Your task to perform on an android device: turn off data saver in the chrome app Image 0: 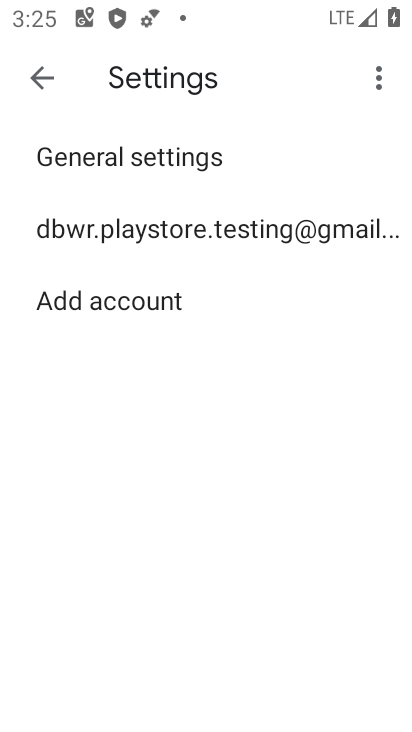
Step 0: press home button
Your task to perform on an android device: turn off data saver in the chrome app Image 1: 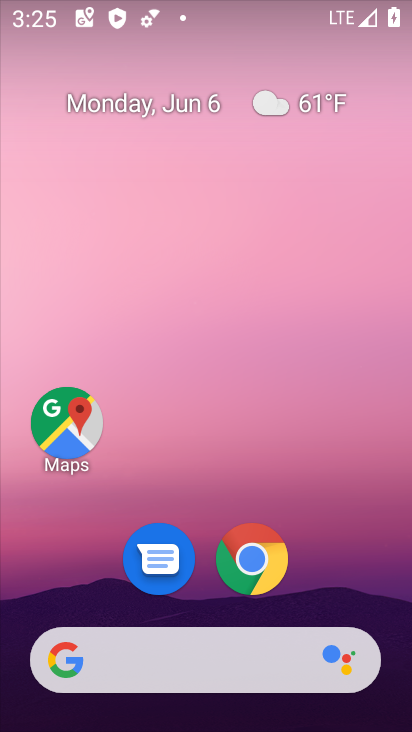
Step 1: click (244, 579)
Your task to perform on an android device: turn off data saver in the chrome app Image 2: 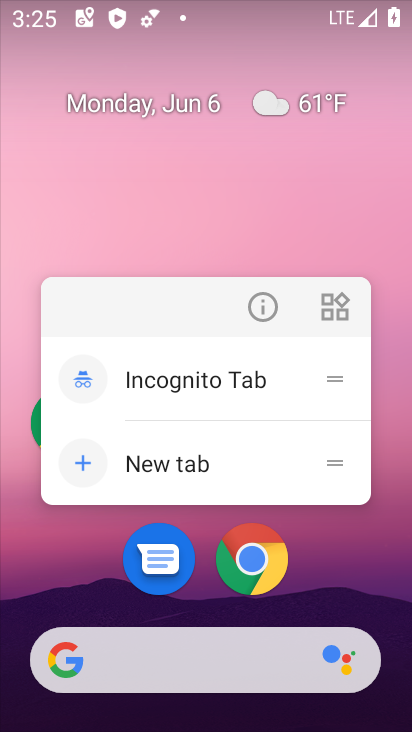
Step 2: click (234, 560)
Your task to perform on an android device: turn off data saver in the chrome app Image 3: 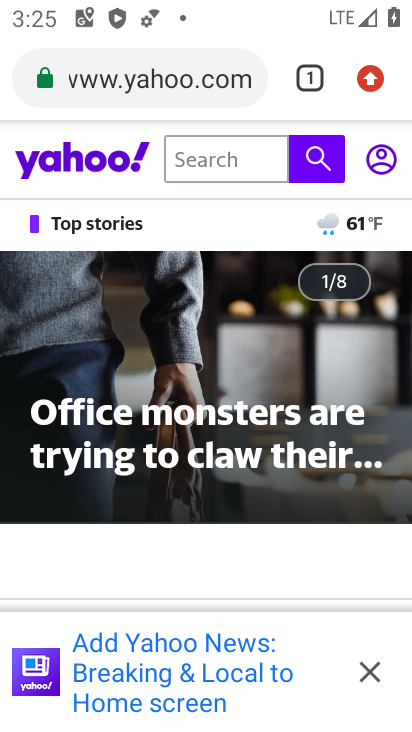
Step 3: click (374, 79)
Your task to perform on an android device: turn off data saver in the chrome app Image 4: 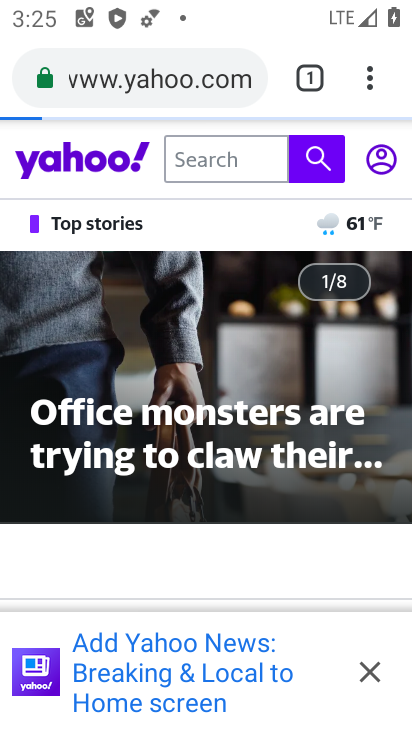
Step 4: drag from (374, 79) to (166, 632)
Your task to perform on an android device: turn off data saver in the chrome app Image 5: 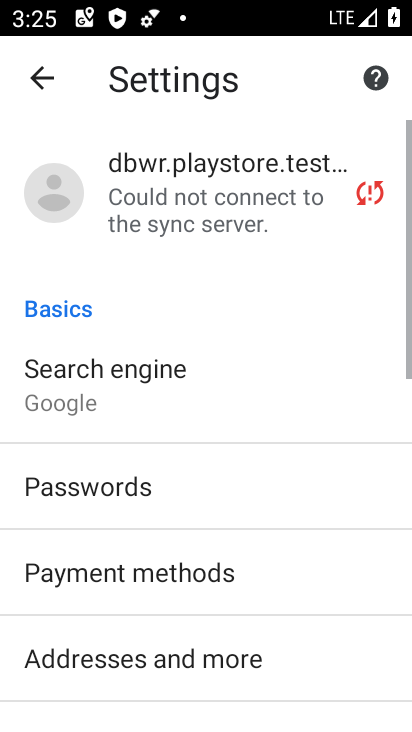
Step 5: drag from (160, 393) to (146, 3)
Your task to perform on an android device: turn off data saver in the chrome app Image 6: 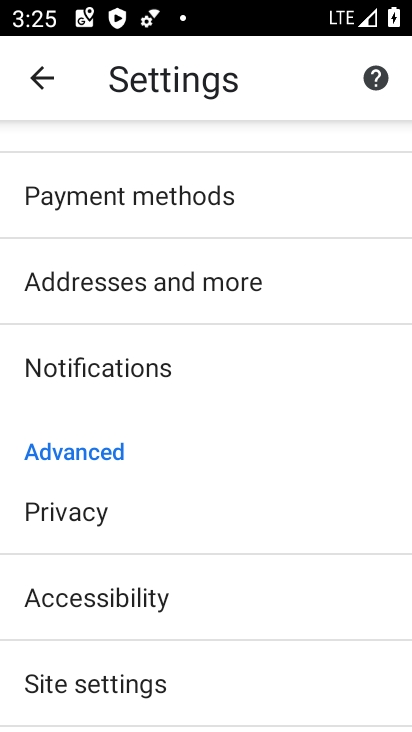
Step 6: drag from (154, 653) to (131, 20)
Your task to perform on an android device: turn off data saver in the chrome app Image 7: 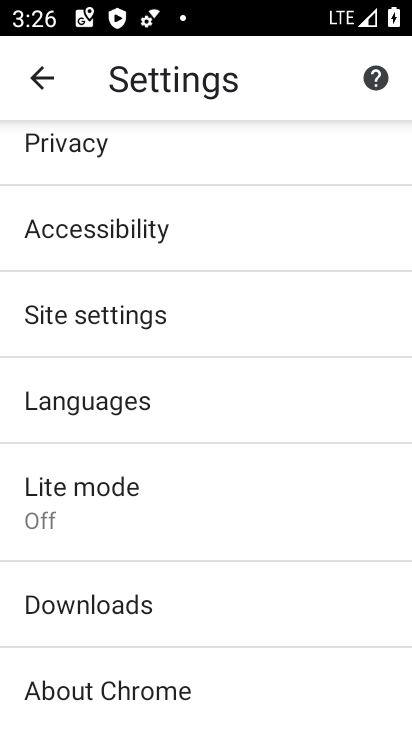
Step 7: click (112, 485)
Your task to perform on an android device: turn off data saver in the chrome app Image 8: 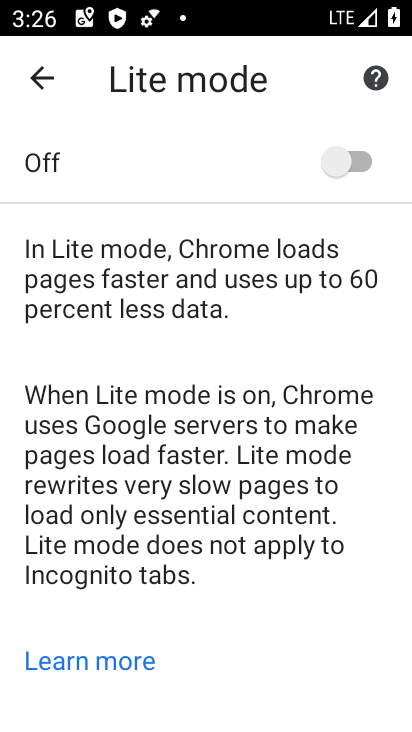
Step 8: task complete